Your task to perform on an android device: find snoozed emails in the gmail app Image 0: 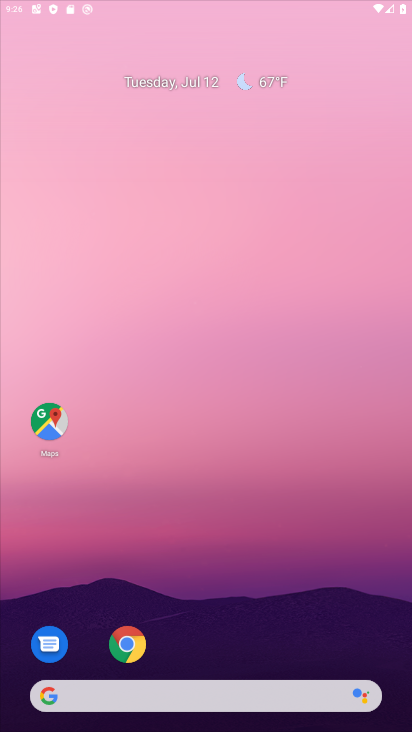
Step 0: click (286, 187)
Your task to perform on an android device: find snoozed emails in the gmail app Image 1: 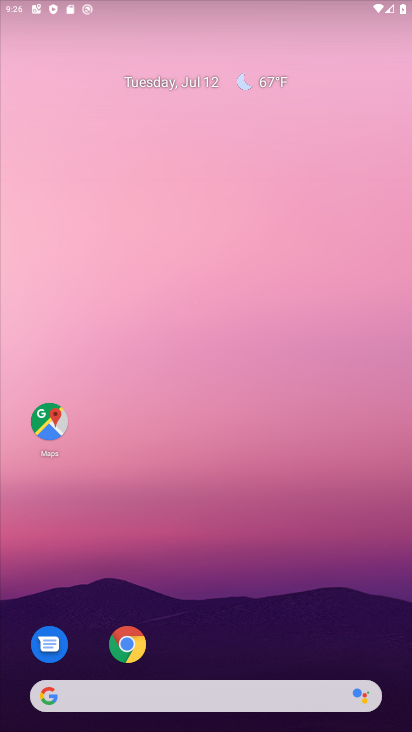
Step 1: drag from (214, 515) to (274, 143)
Your task to perform on an android device: find snoozed emails in the gmail app Image 2: 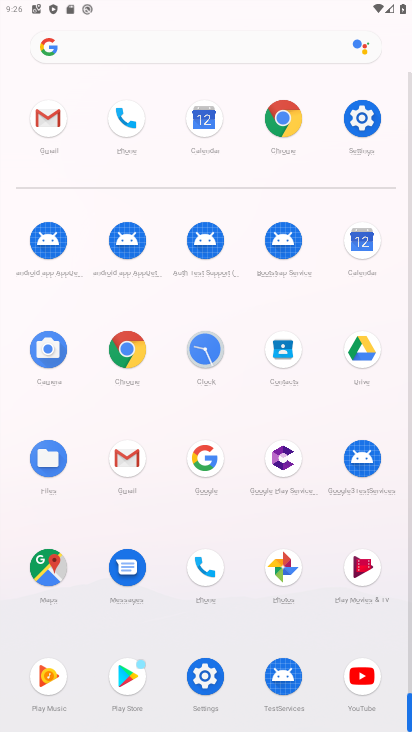
Step 2: click (126, 448)
Your task to perform on an android device: find snoozed emails in the gmail app Image 3: 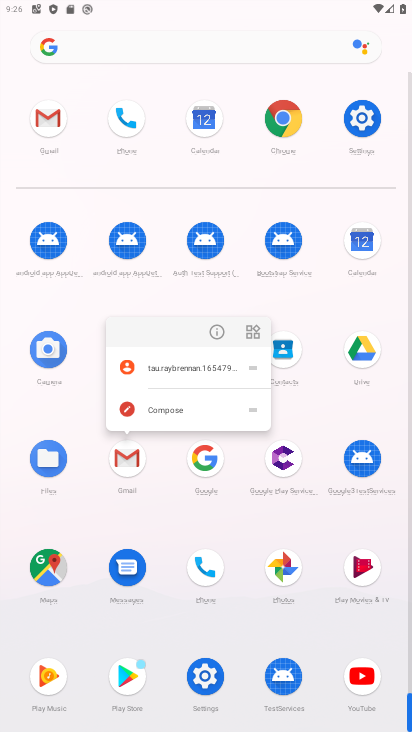
Step 3: click (218, 323)
Your task to perform on an android device: find snoozed emails in the gmail app Image 4: 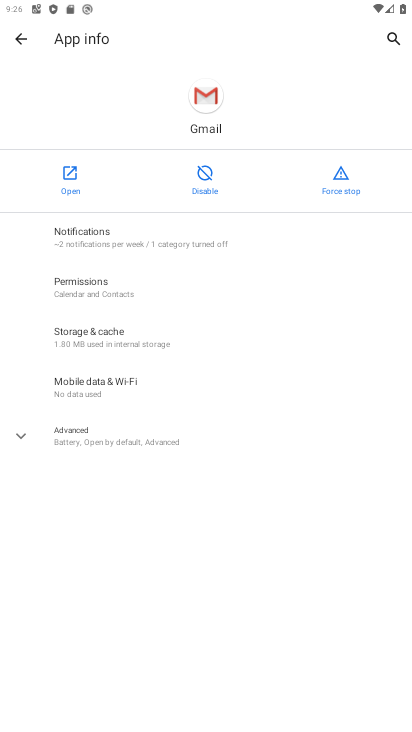
Step 4: click (70, 186)
Your task to perform on an android device: find snoozed emails in the gmail app Image 5: 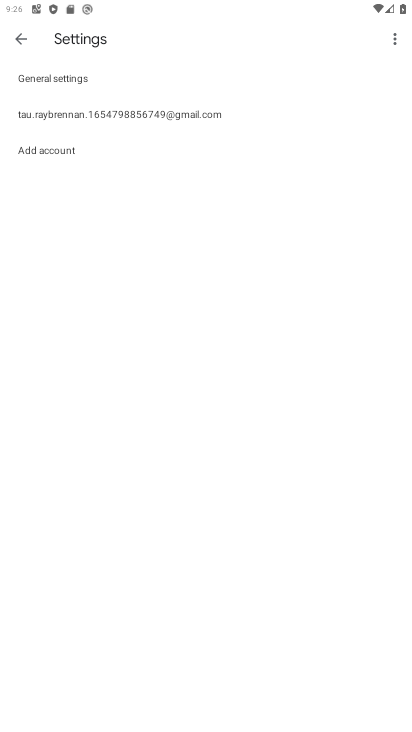
Step 5: click (5, 18)
Your task to perform on an android device: find snoozed emails in the gmail app Image 6: 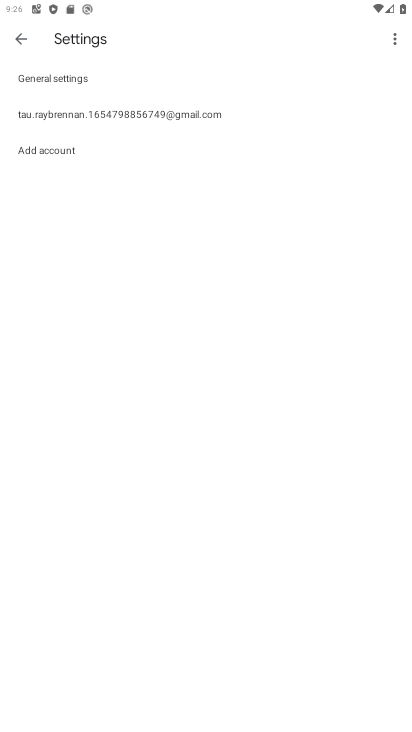
Step 6: click (19, 42)
Your task to perform on an android device: find snoozed emails in the gmail app Image 7: 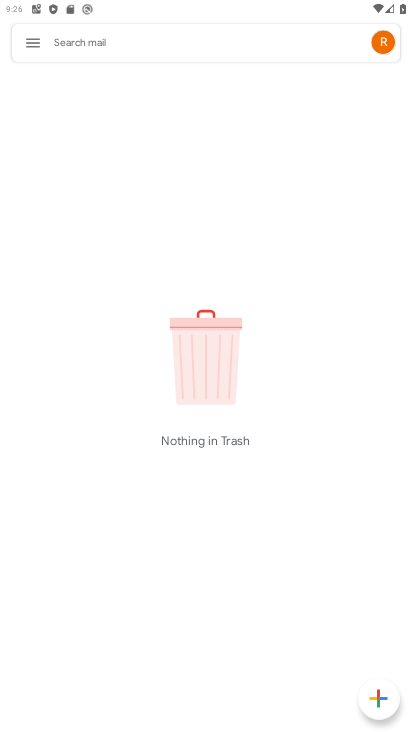
Step 7: click (36, 45)
Your task to perform on an android device: find snoozed emails in the gmail app Image 8: 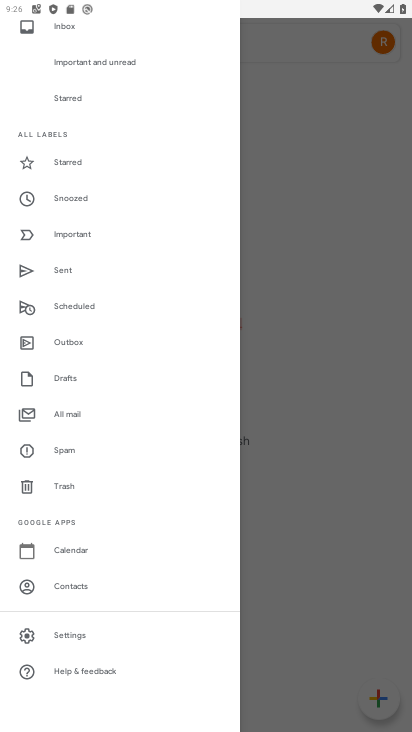
Step 8: click (84, 199)
Your task to perform on an android device: find snoozed emails in the gmail app Image 9: 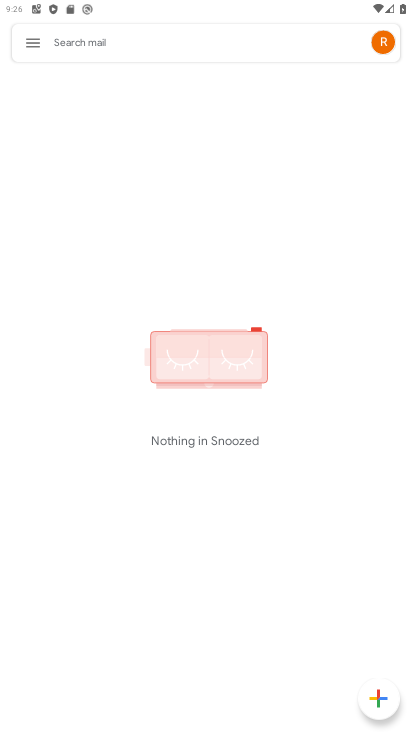
Step 9: task complete